Your task to perform on an android device: Open Amazon Image 0: 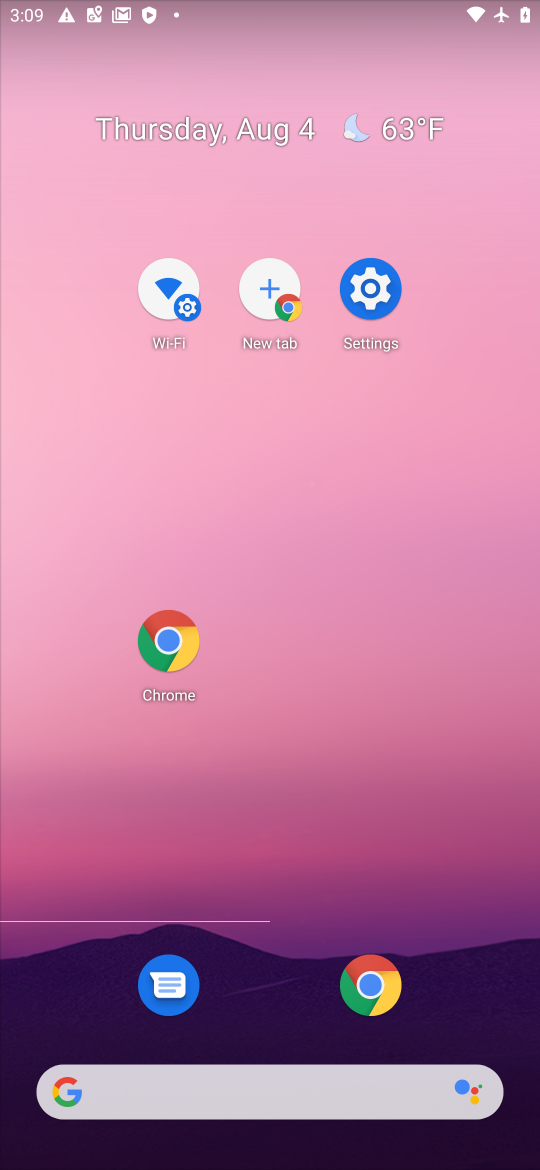
Step 0: press back button
Your task to perform on an android device: Open Amazon Image 1: 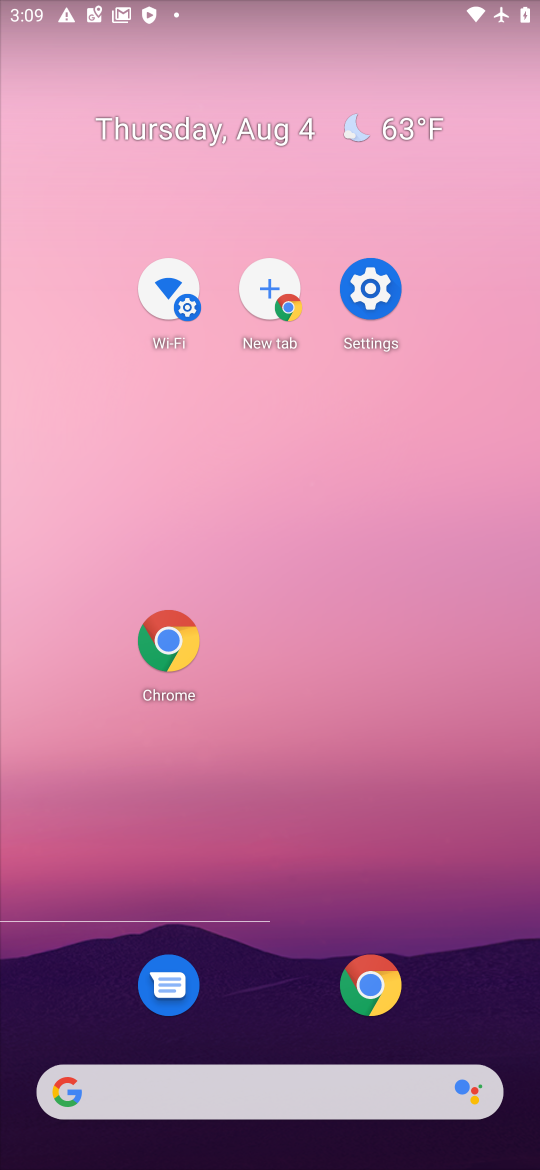
Step 1: drag from (343, 994) to (255, 291)
Your task to perform on an android device: Open Amazon Image 2: 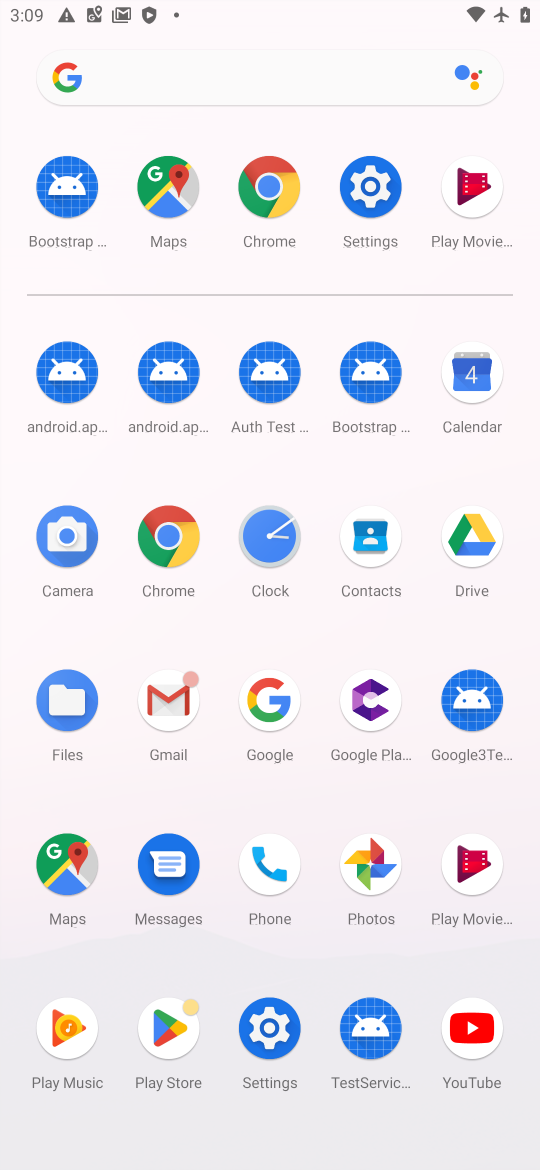
Step 2: click (276, 197)
Your task to perform on an android device: Open Amazon Image 3: 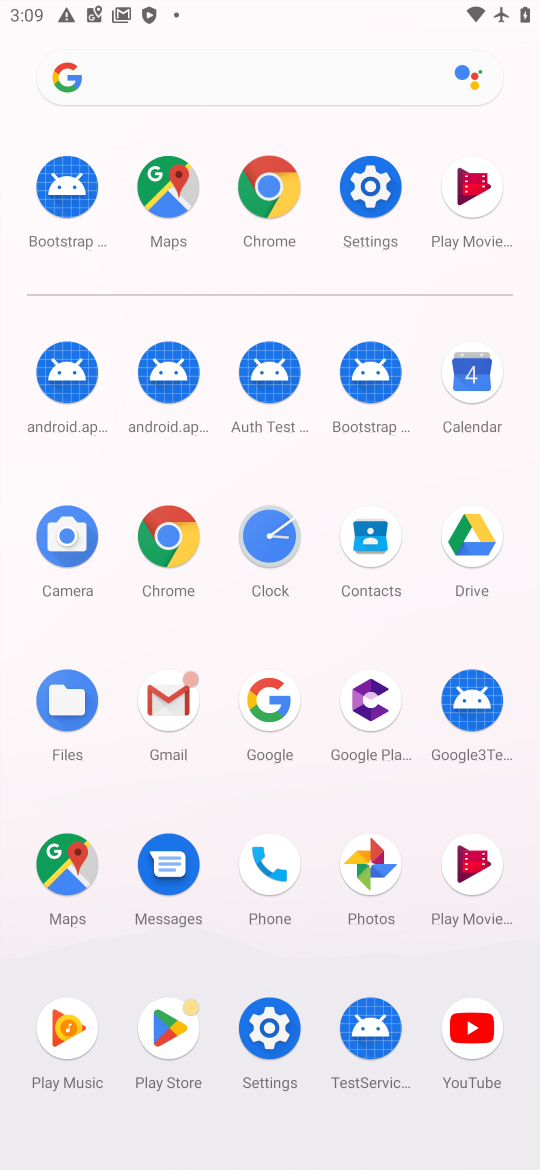
Step 3: click (279, 194)
Your task to perform on an android device: Open Amazon Image 4: 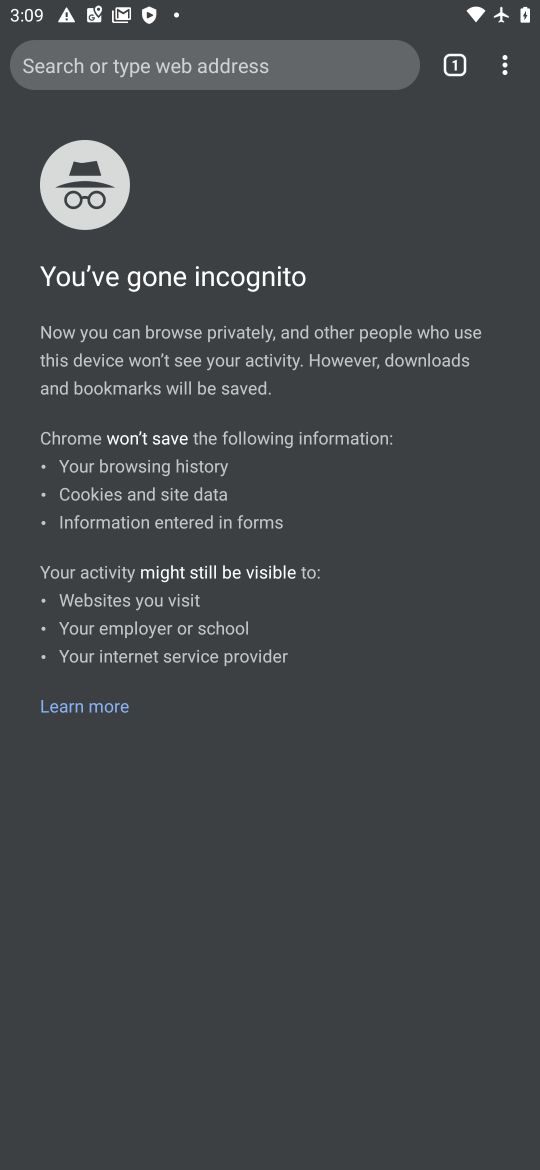
Step 4: drag from (497, 60) to (286, 124)
Your task to perform on an android device: Open Amazon Image 5: 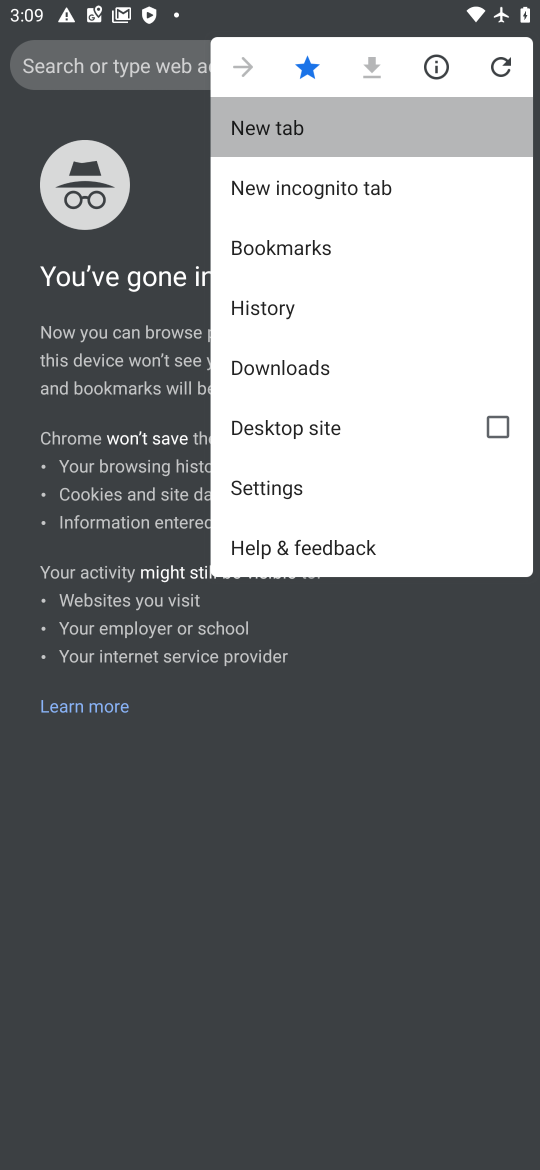
Step 5: click (289, 123)
Your task to perform on an android device: Open Amazon Image 6: 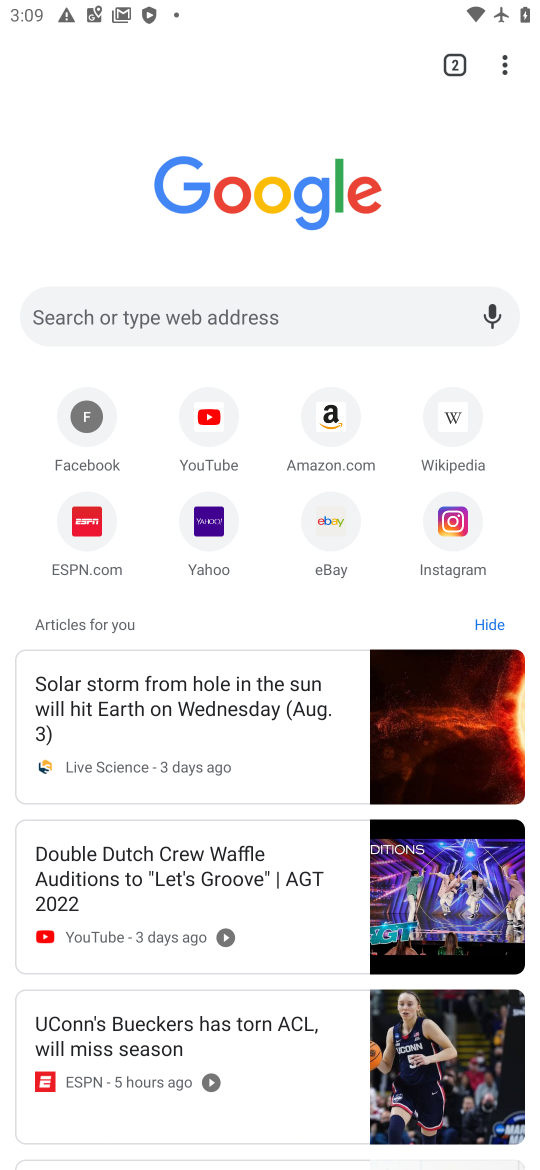
Step 6: click (331, 416)
Your task to perform on an android device: Open Amazon Image 7: 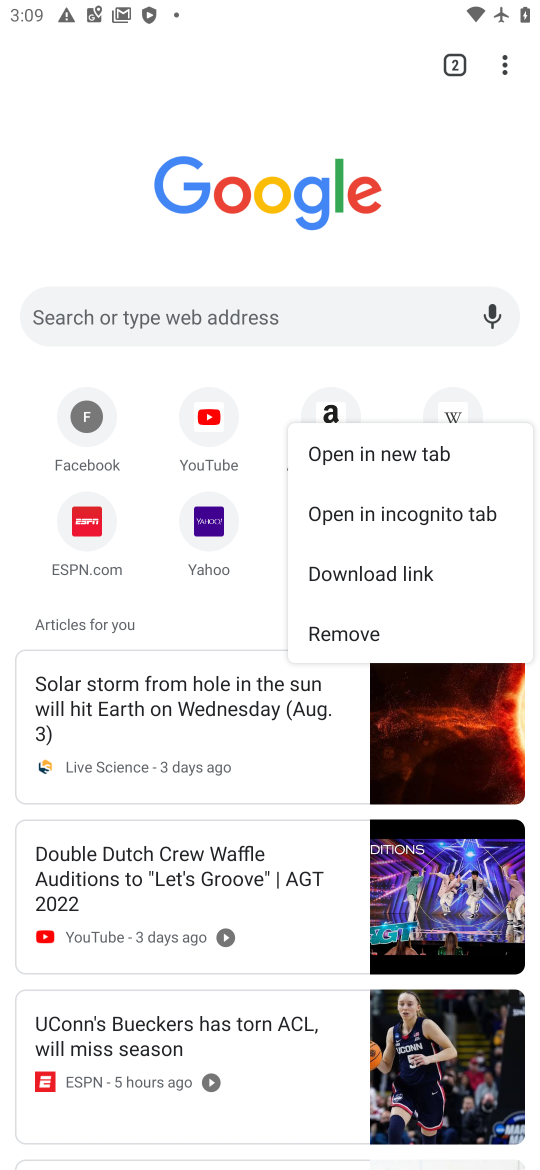
Step 7: click (352, 451)
Your task to perform on an android device: Open Amazon Image 8: 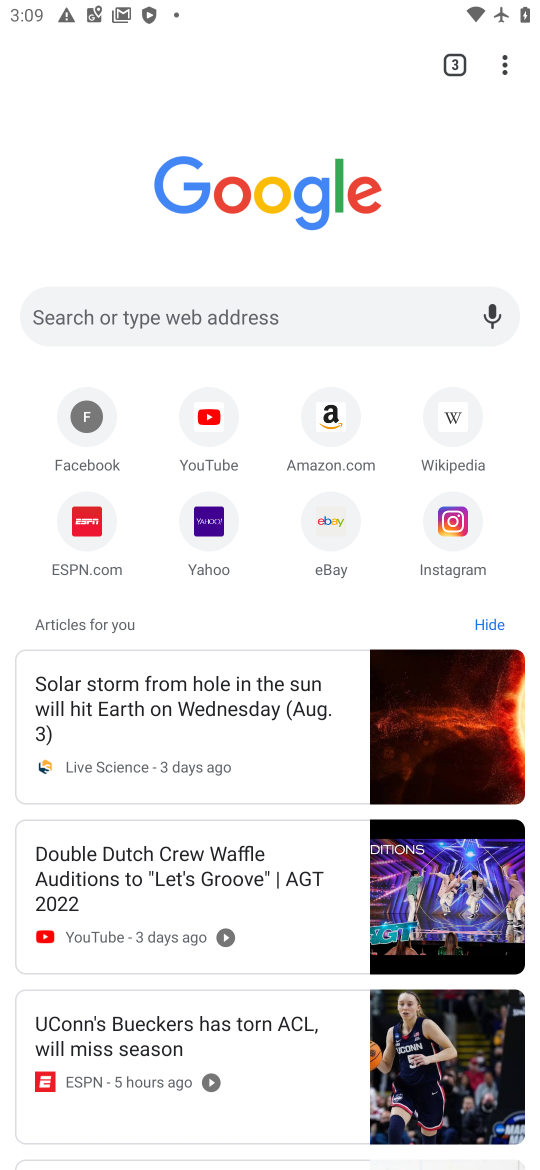
Step 8: click (331, 415)
Your task to perform on an android device: Open Amazon Image 9: 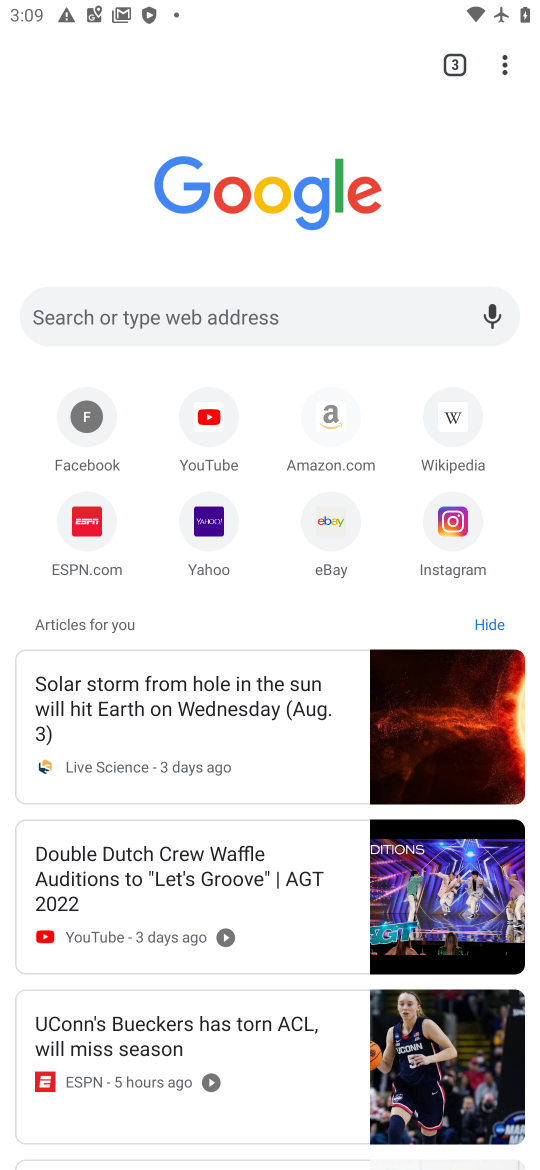
Step 9: task complete